Your task to perform on an android device: View the shopping cart on amazon.com. Add usb-c to usb-b to the cart on amazon.com Image 0: 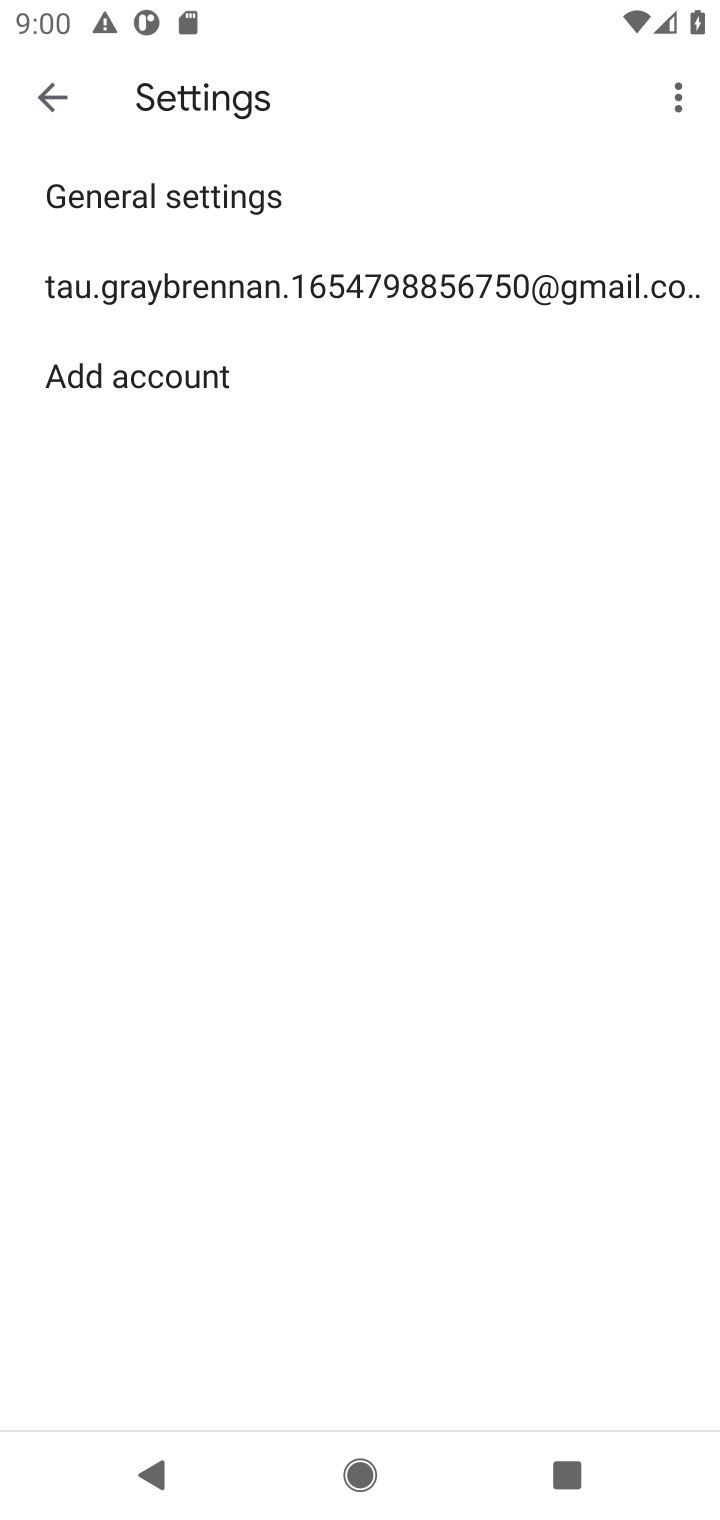
Step 0: press home button
Your task to perform on an android device: View the shopping cart on amazon.com. Add usb-c to usb-b to the cart on amazon.com Image 1: 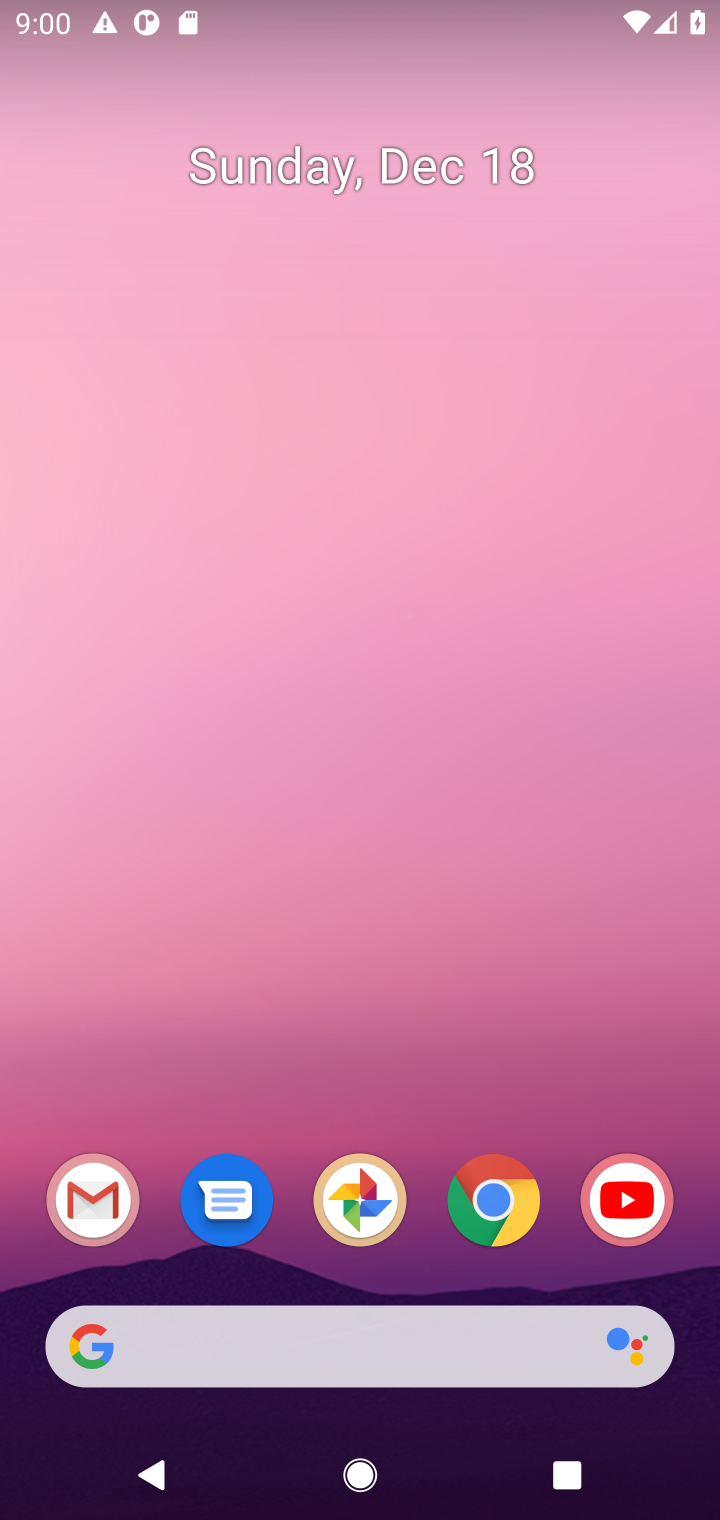
Step 1: click (466, 1186)
Your task to perform on an android device: View the shopping cart on amazon.com. Add usb-c to usb-b to the cart on amazon.com Image 2: 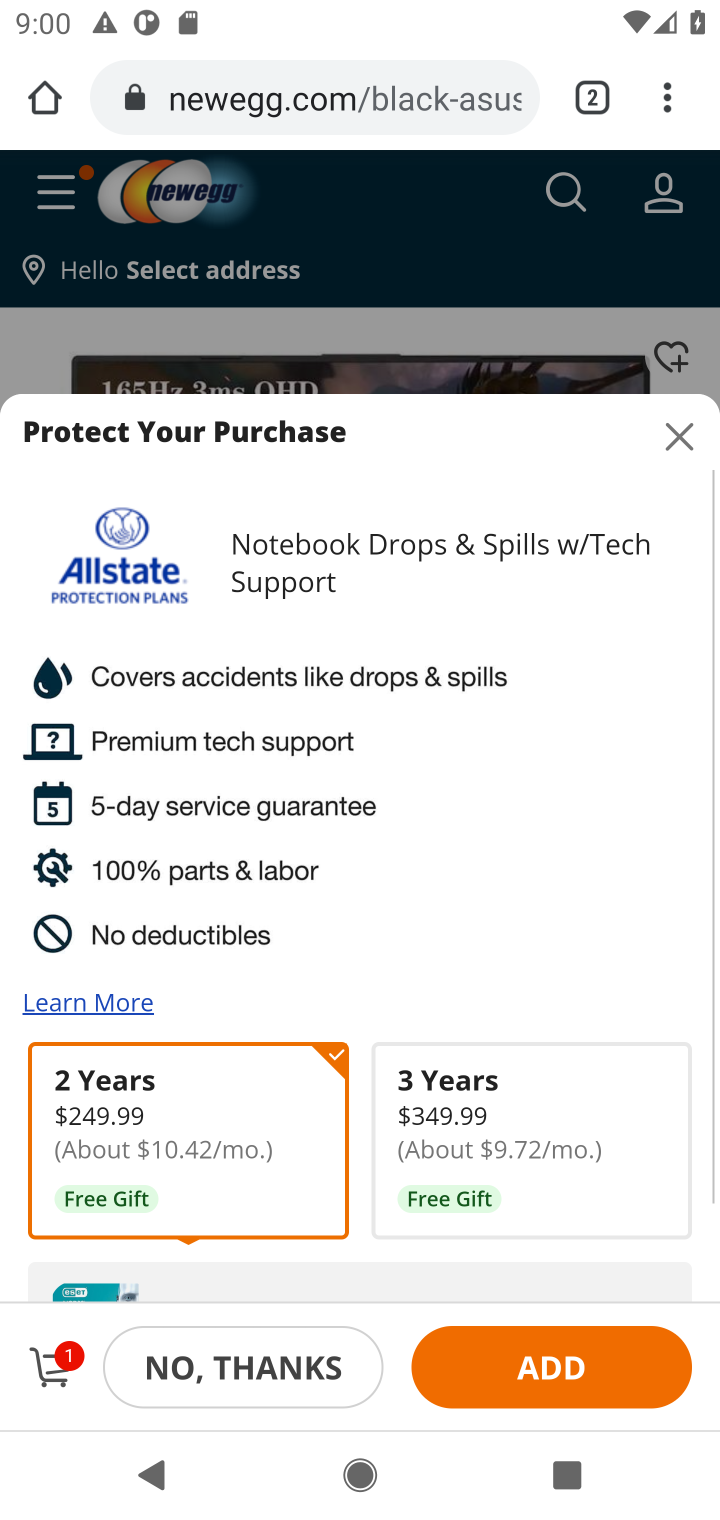
Step 2: click (333, 115)
Your task to perform on an android device: View the shopping cart on amazon.com. Add usb-c to usb-b to the cart on amazon.com Image 3: 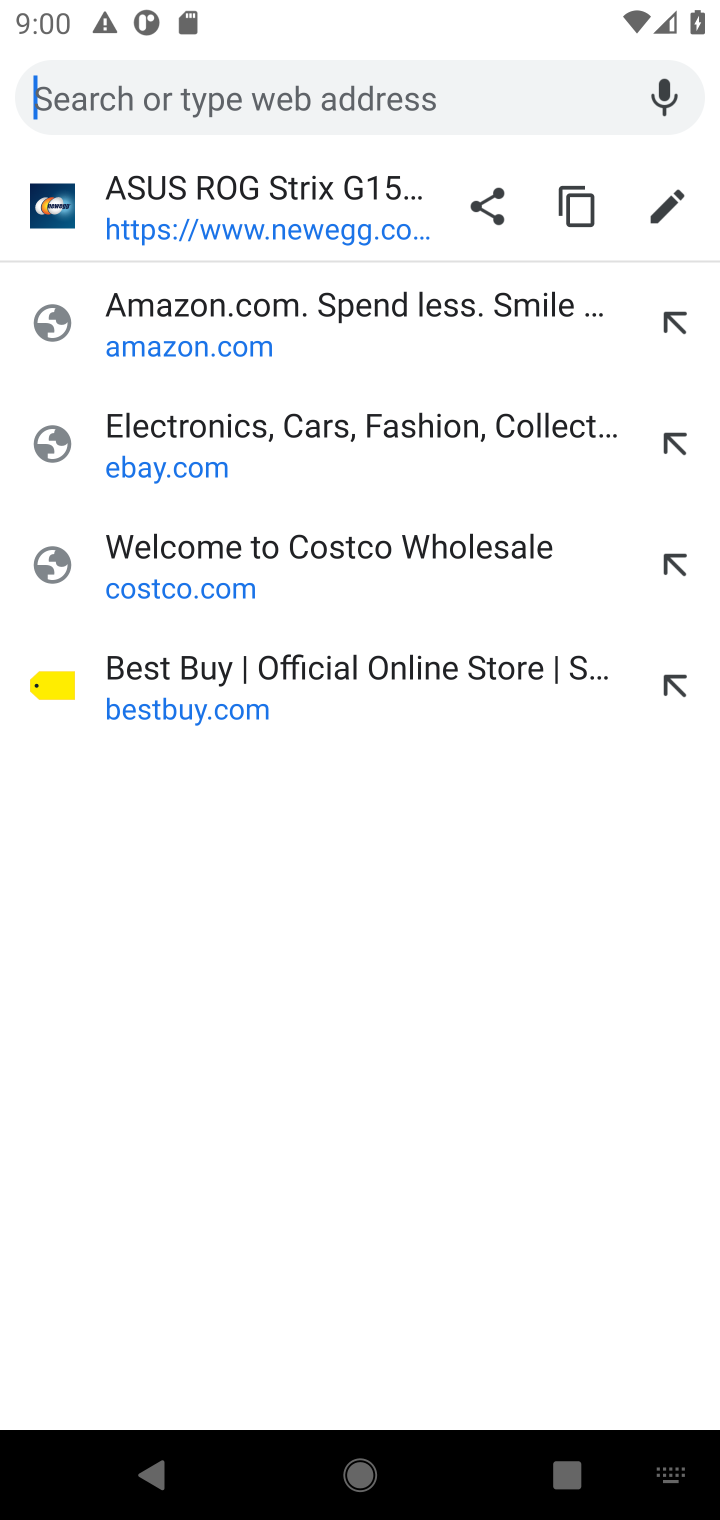
Step 3: click (179, 326)
Your task to perform on an android device: View the shopping cart on amazon.com. Add usb-c to usb-b to the cart on amazon.com Image 4: 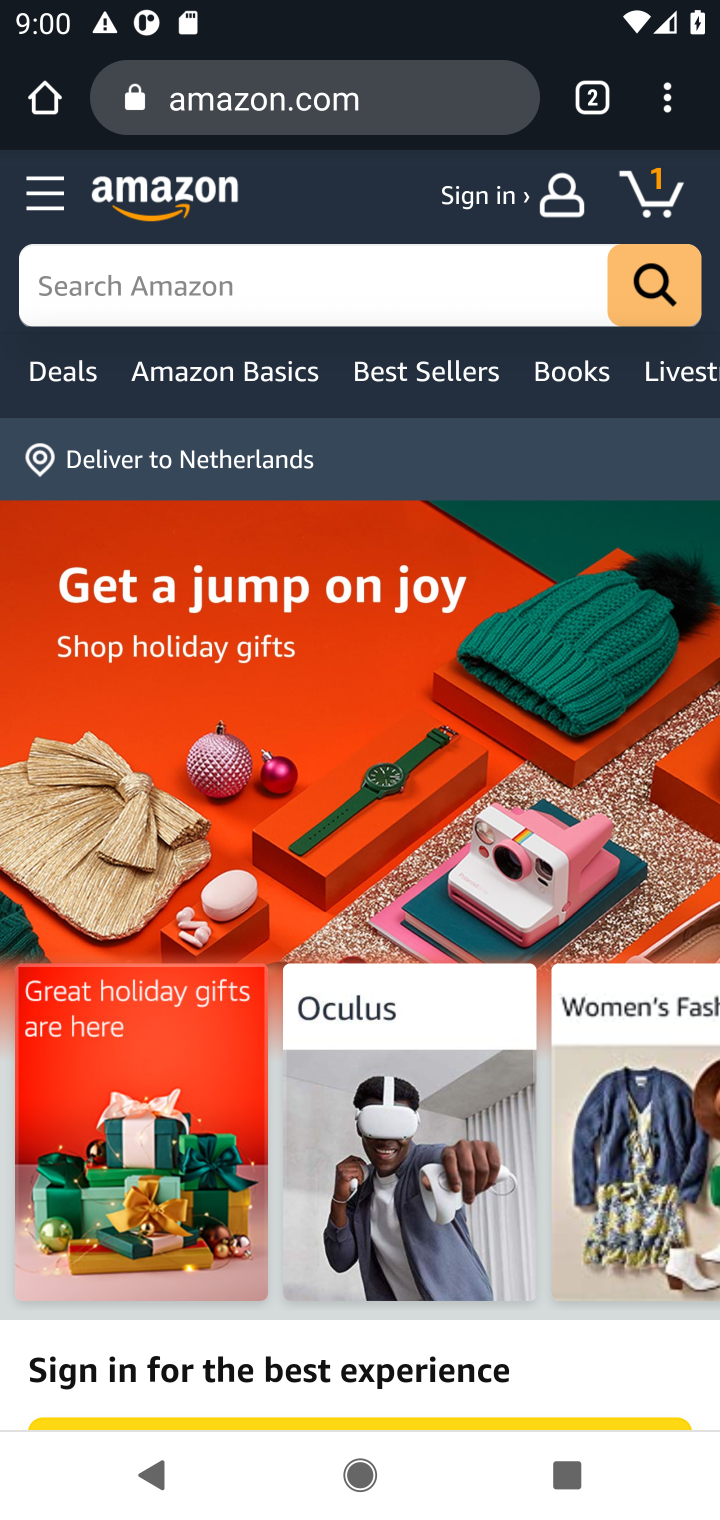
Step 4: click (644, 196)
Your task to perform on an android device: View the shopping cart on amazon.com. Add usb-c to usb-b to the cart on amazon.com Image 5: 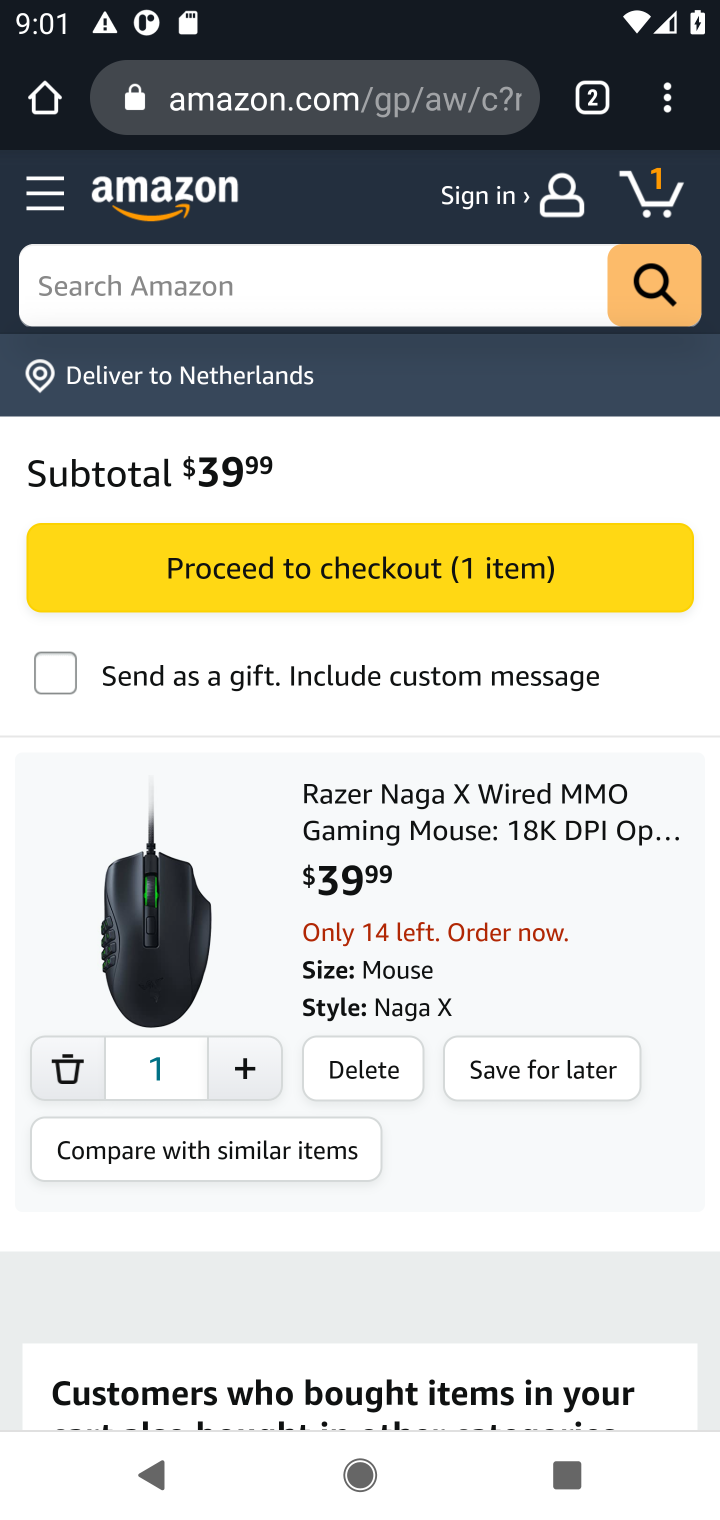
Step 5: click (189, 284)
Your task to perform on an android device: View the shopping cart on amazon.com. Add usb-c to usb-b to the cart on amazon.com Image 6: 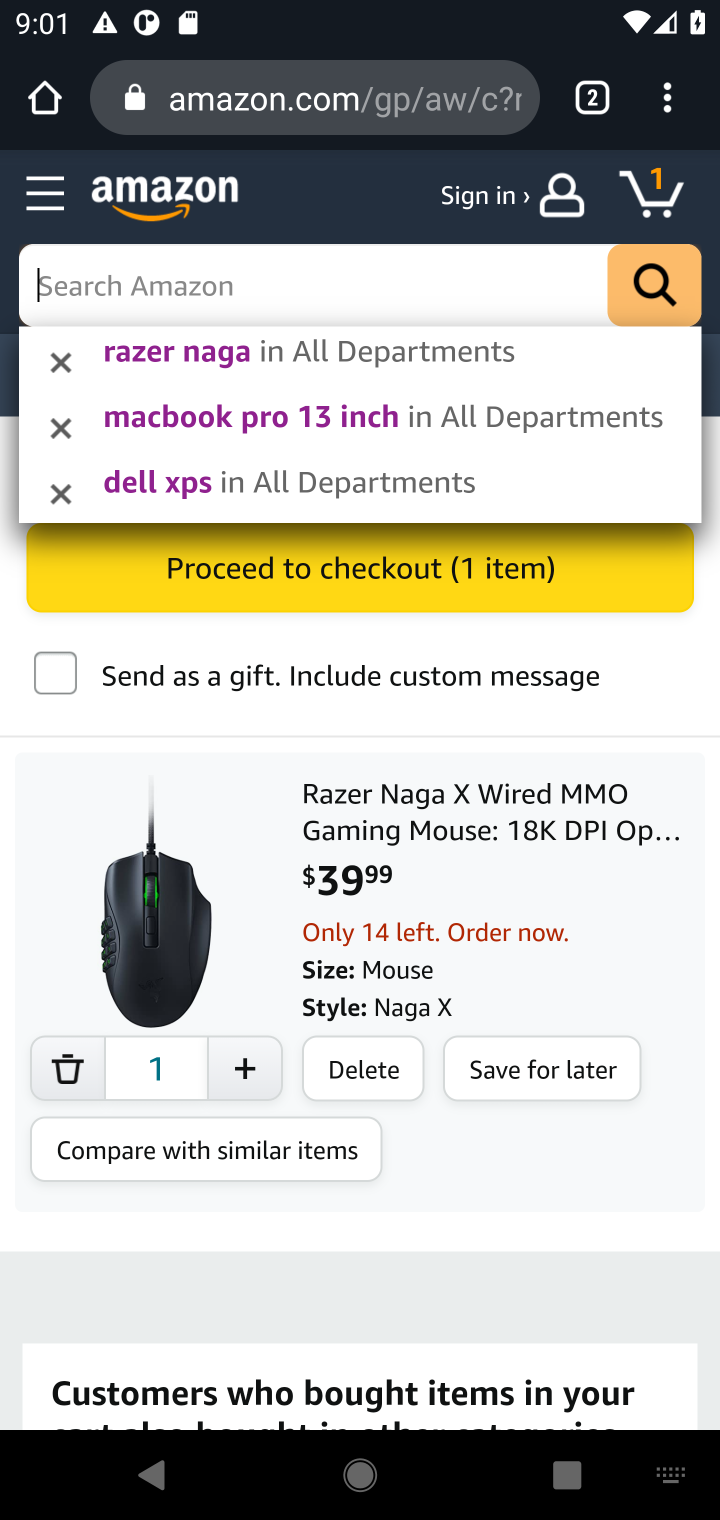
Step 6: type "usb-c to usb-b"
Your task to perform on an android device: View the shopping cart on amazon.com. Add usb-c to usb-b to the cart on amazon.com Image 7: 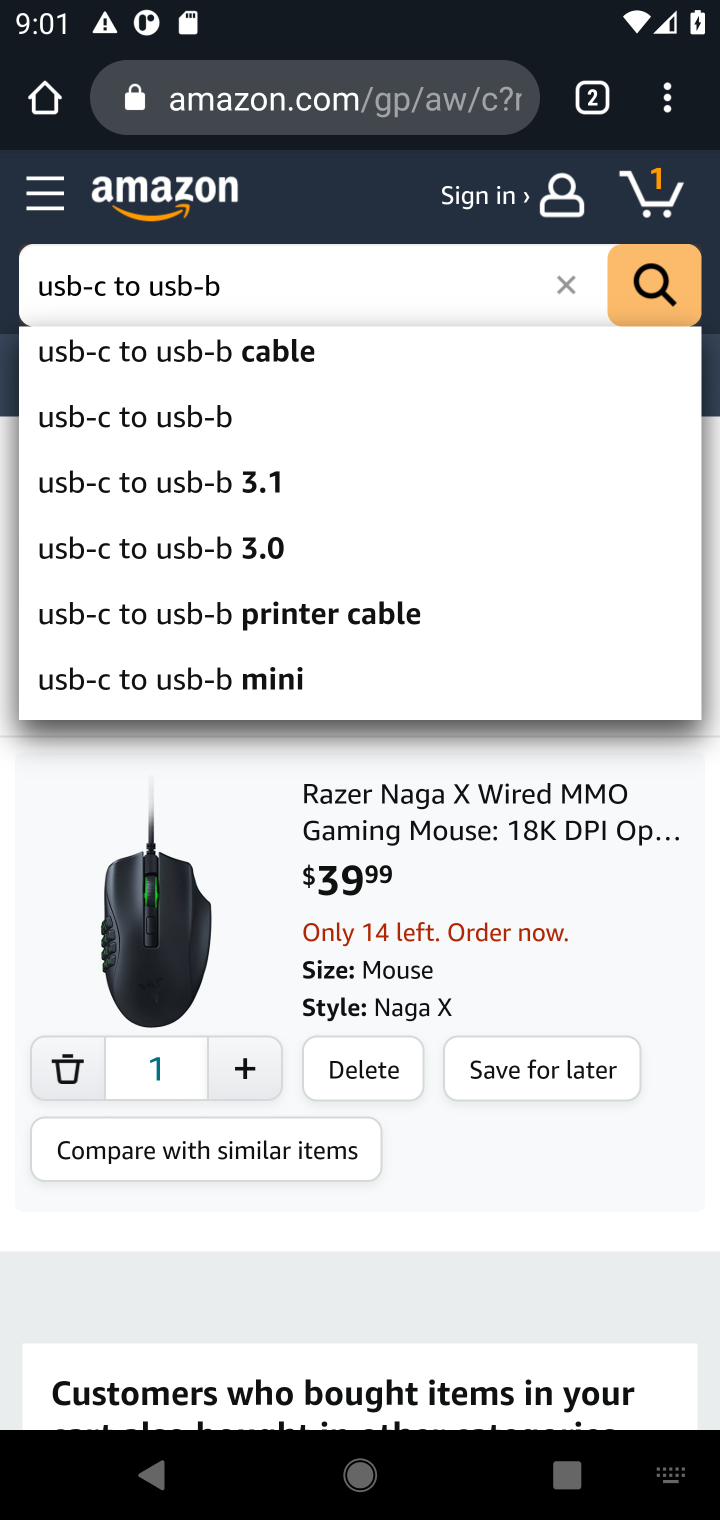
Step 7: click (189, 433)
Your task to perform on an android device: View the shopping cart on amazon.com. Add usb-c to usb-b to the cart on amazon.com Image 8: 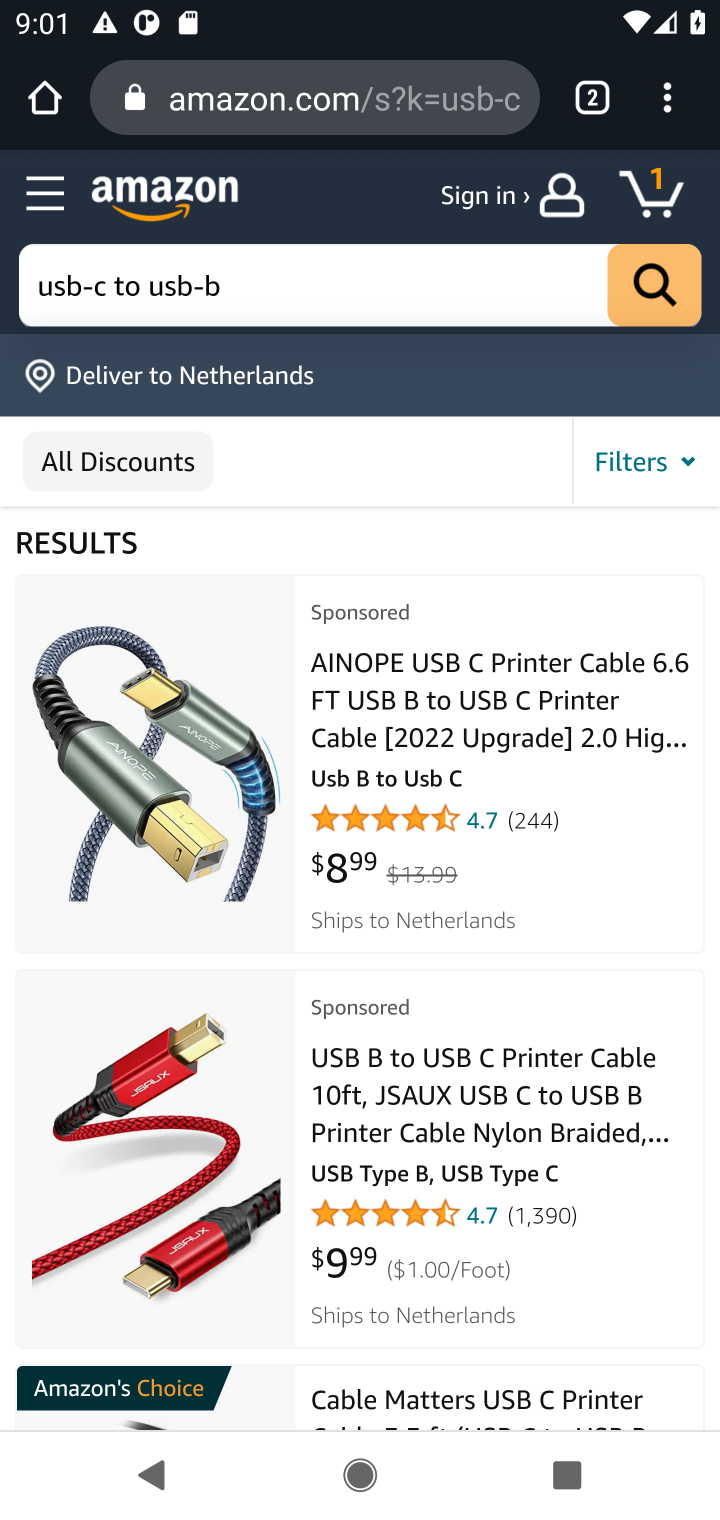
Step 8: click (371, 1137)
Your task to perform on an android device: View the shopping cart on amazon.com. Add usb-c to usb-b to the cart on amazon.com Image 9: 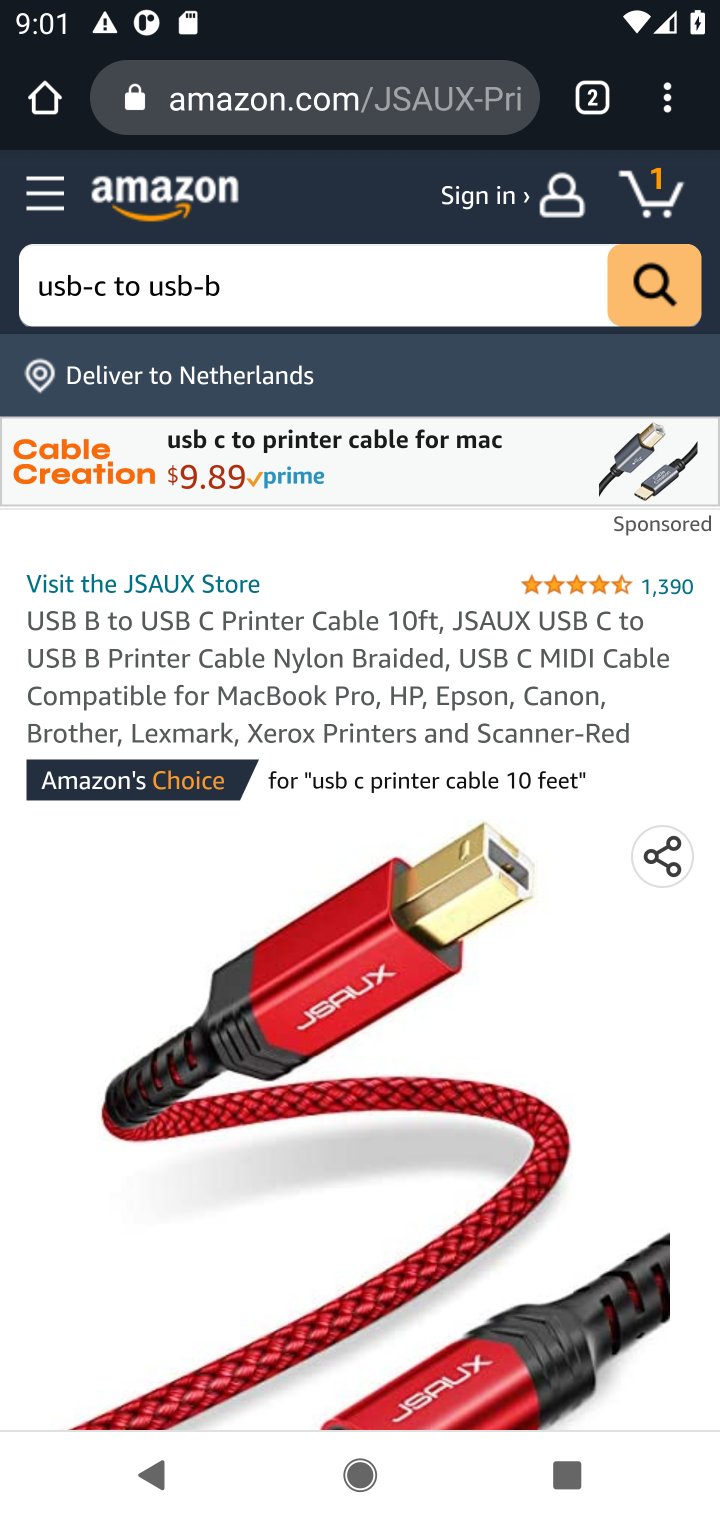
Step 9: drag from (367, 1126) to (312, 504)
Your task to perform on an android device: View the shopping cart on amazon.com. Add usb-c to usb-b to the cart on amazon.com Image 10: 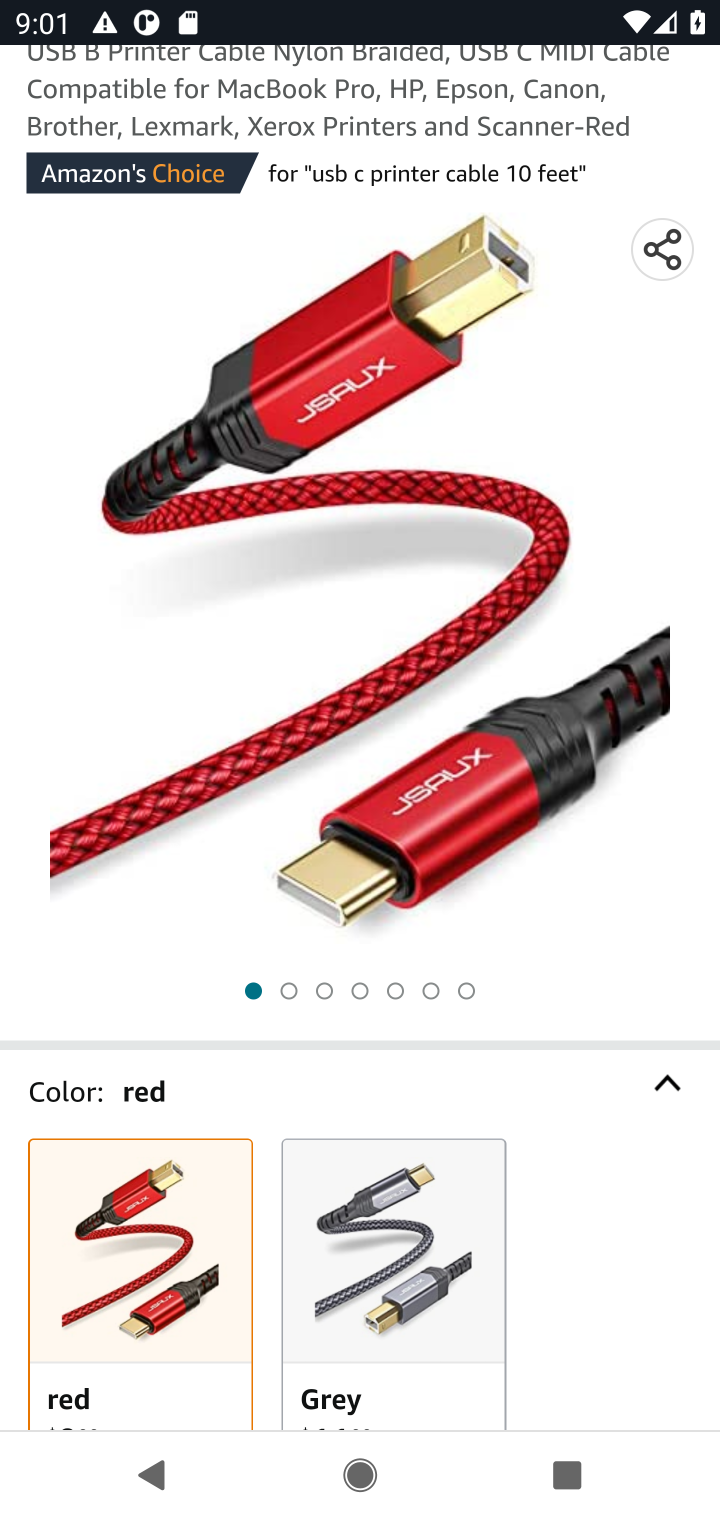
Step 10: drag from (244, 1120) to (225, 340)
Your task to perform on an android device: View the shopping cart on amazon.com. Add usb-c to usb-b to the cart on amazon.com Image 11: 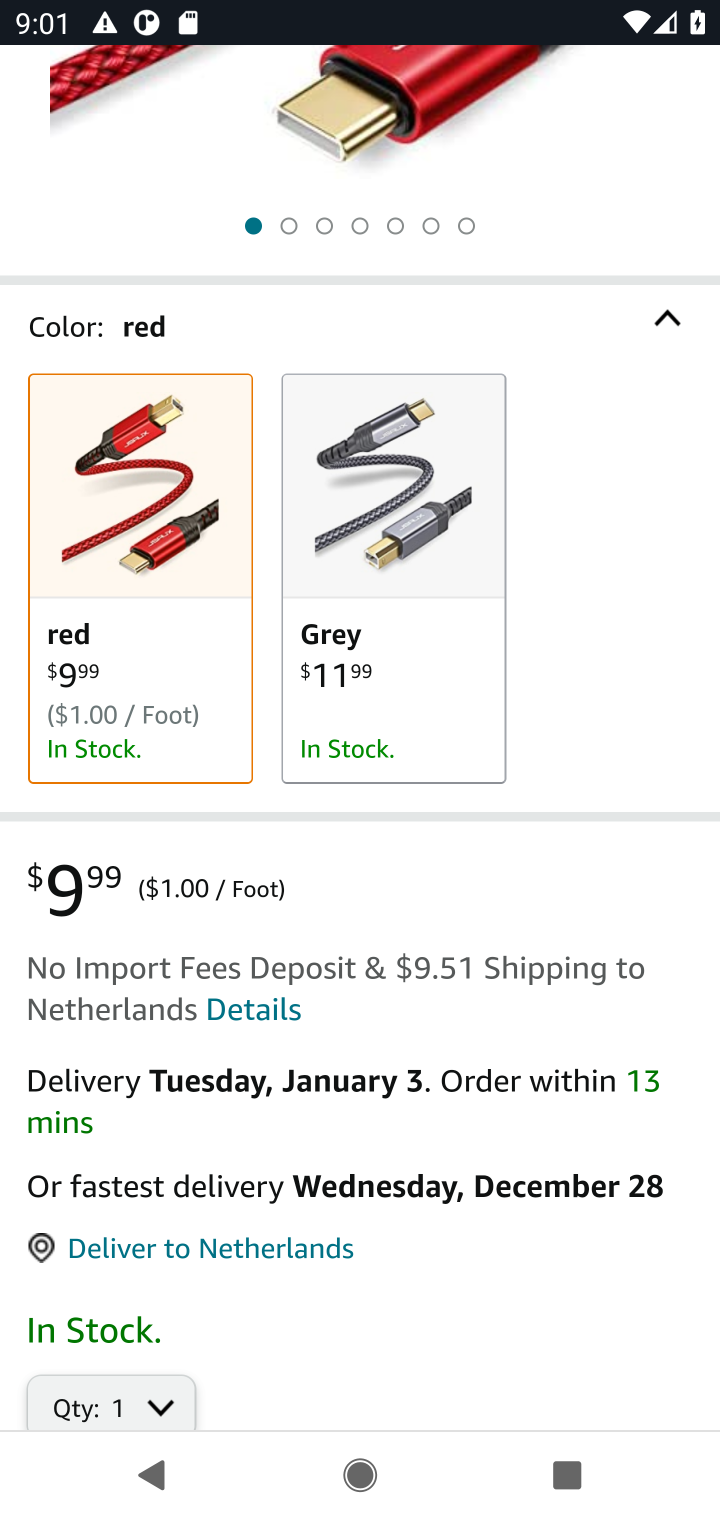
Step 11: drag from (215, 1083) to (247, 417)
Your task to perform on an android device: View the shopping cart on amazon.com. Add usb-c to usb-b to the cart on amazon.com Image 12: 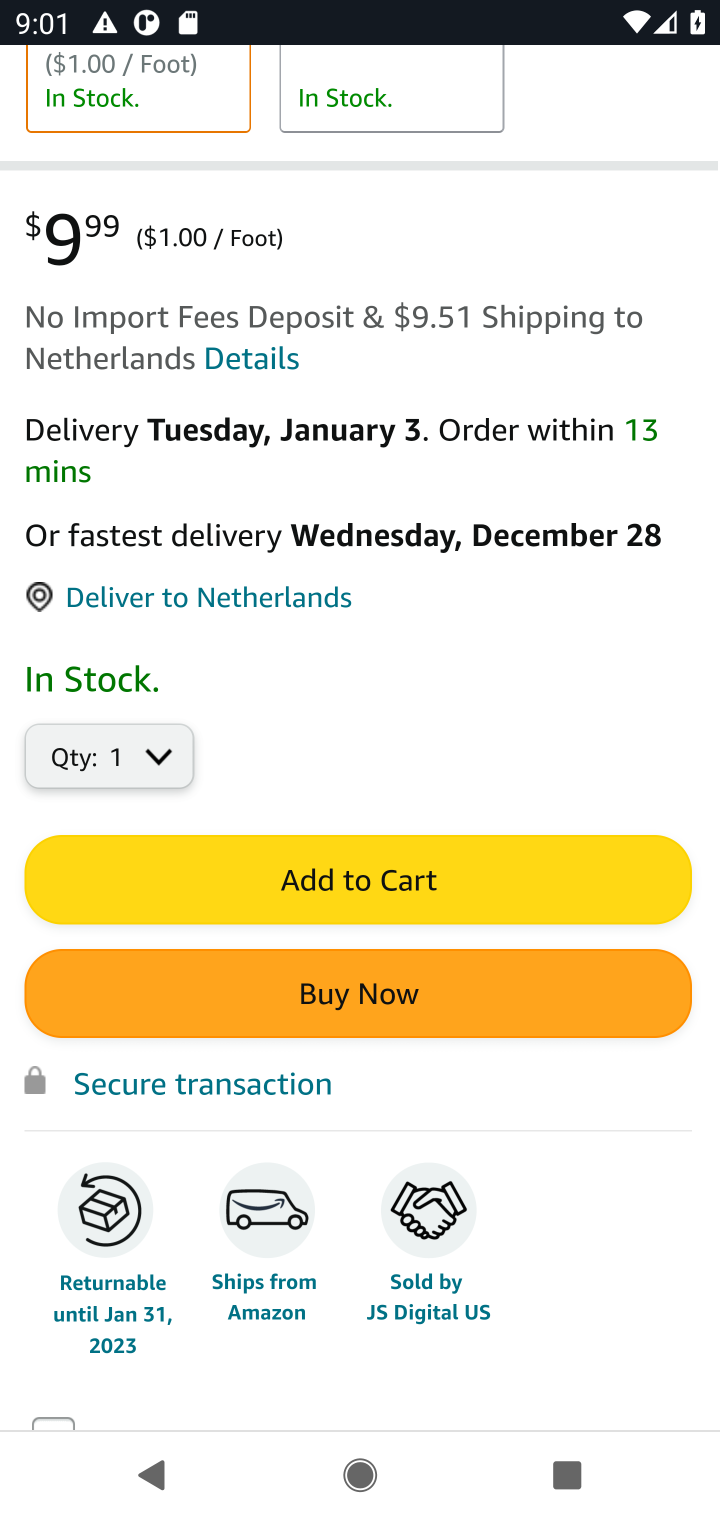
Step 12: click (299, 876)
Your task to perform on an android device: View the shopping cart on amazon.com. Add usb-c to usb-b to the cart on amazon.com Image 13: 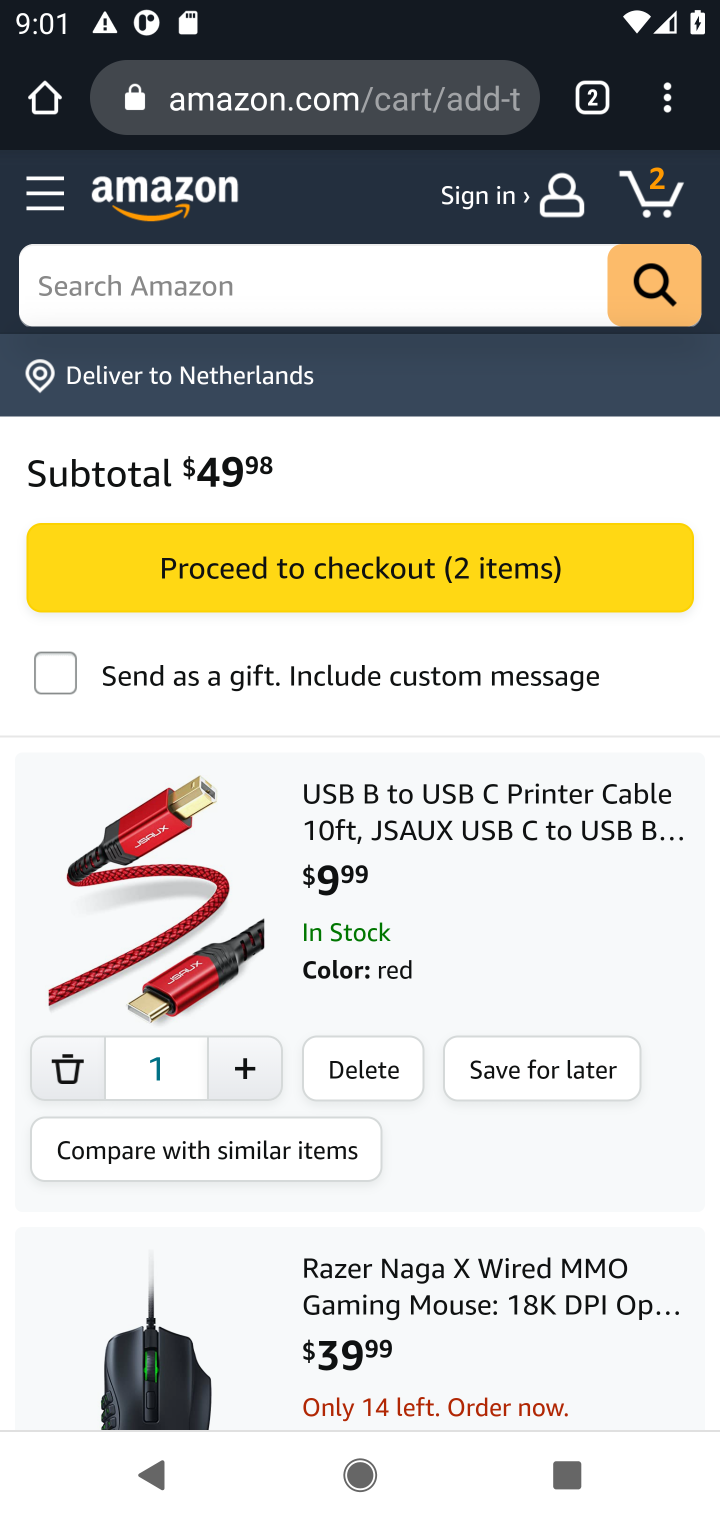
Step 13: task complete